Your task to perform on an android device: Open Google Chrome Image 0: 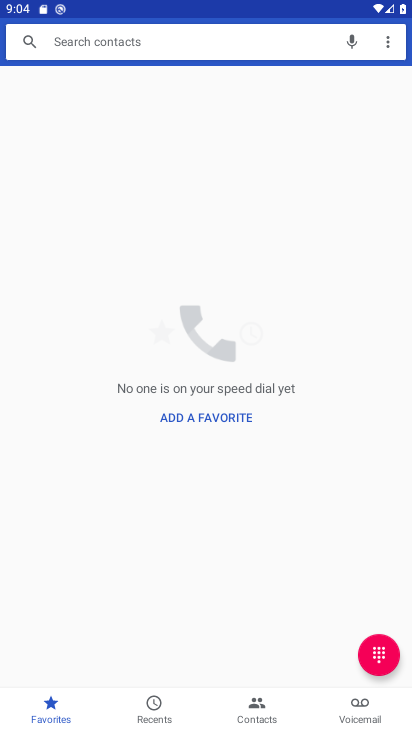
Step 0: press home button
Your task to perform on an android device: Open Google Chrome Image 1: 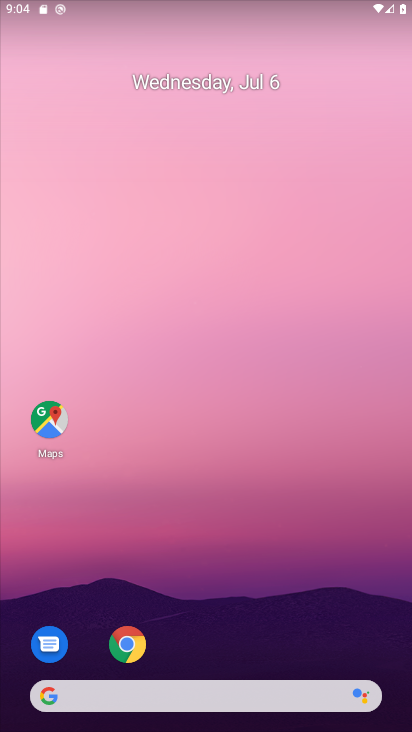
Step 1: drag from (240, 656) to (234, 2)
Your task to perform on an android device: Open Google Chrome Image 2: 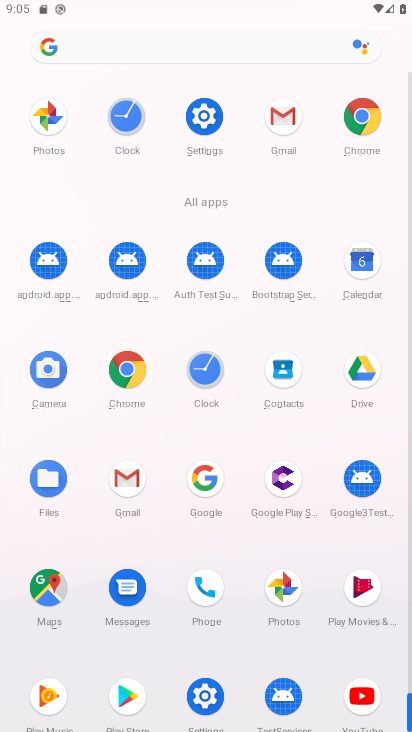
Step 2: click (368, 137)
Your task to perform on an android device: Open Google Chrome Image 3: 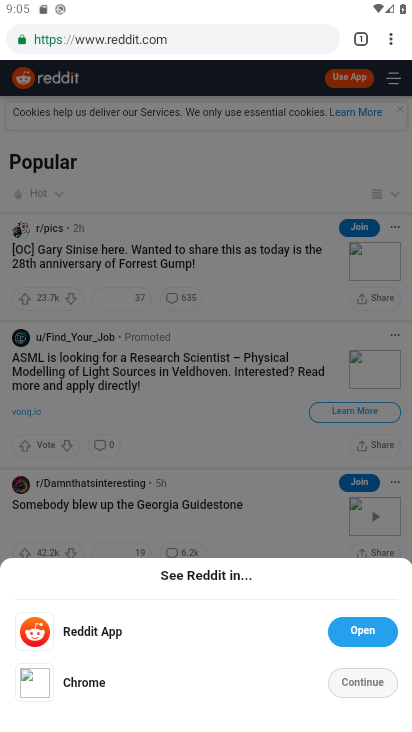
Step 3: task complete